Your task to perform on an android device: Go to Wikipedia Image 0: 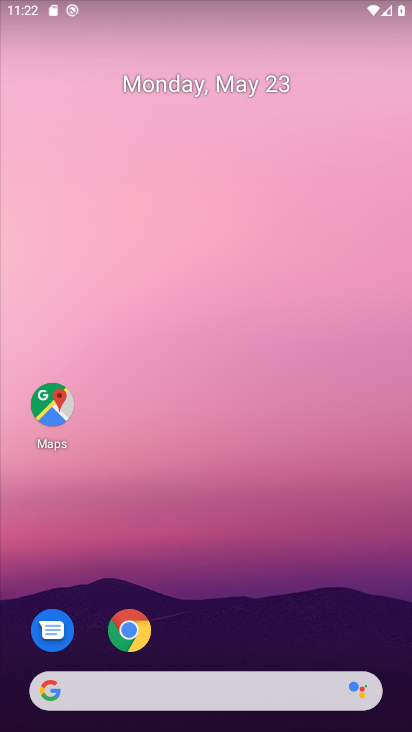
Step 0: click (132, 627)
Your task to perform on an android device: Go to Wikipedia Image 1: 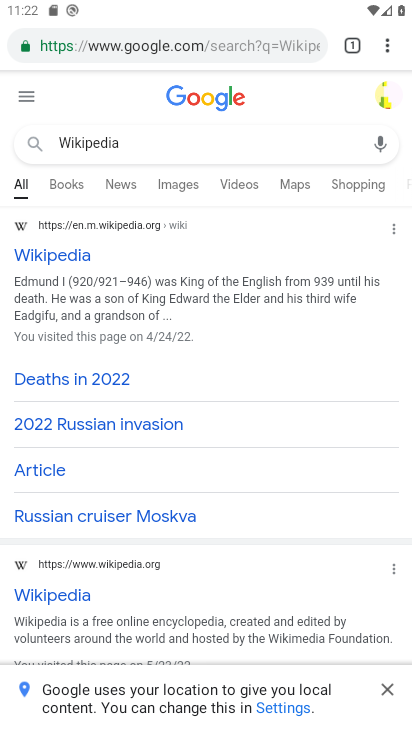
Step 1: click (78, 251)
Your task to perform on an android device: Go to Wikipedia Image 2: 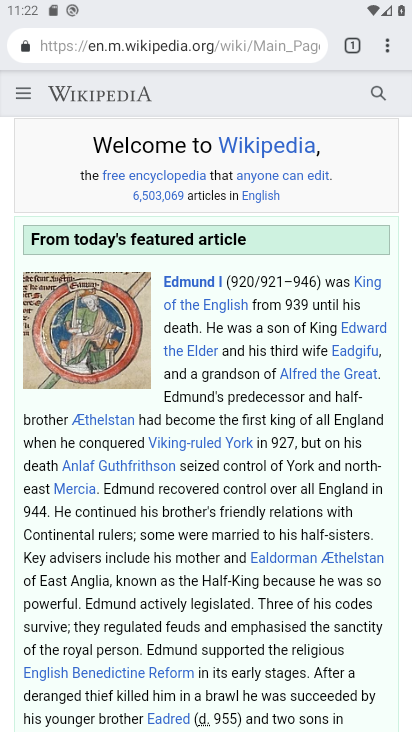
Step 2: task complete